Your task to perform on an android device: turn off javascript in the chrome app Image 0: 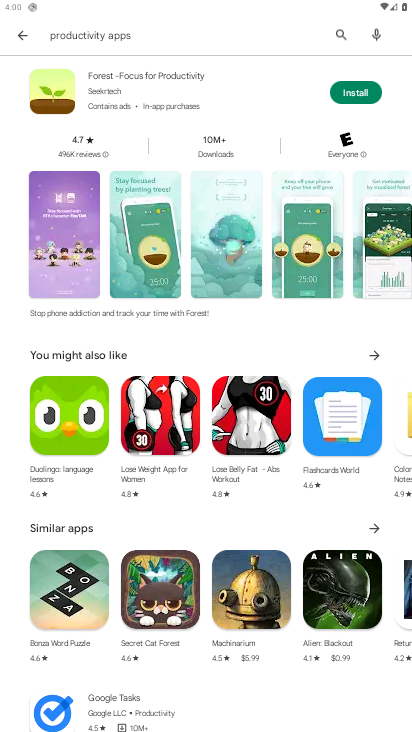
Step 0: press home button
Your task to perform on an android device: turn off javascript in the chrome app Image 1: 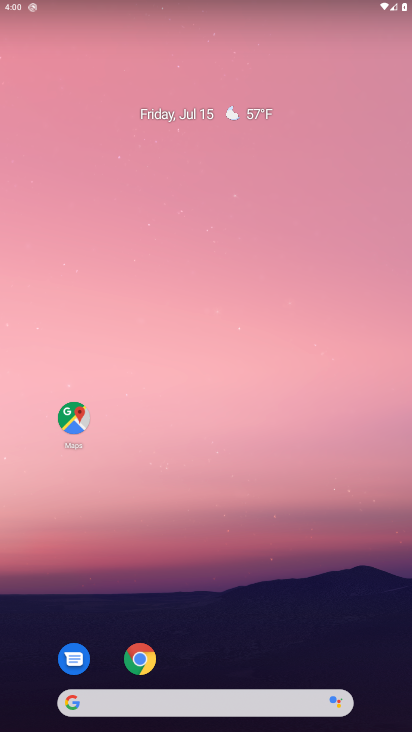
Step 1: click (126, 652)
Your task to perform on an android device: turn off javascript in the chrome app Image 2: 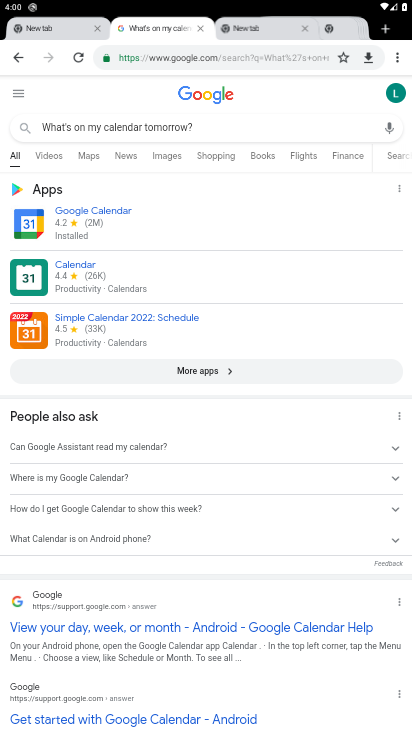
Step 2: click (395, 55)
Your task to perform on an android device: turn off javascript in the chrome app Image 3: 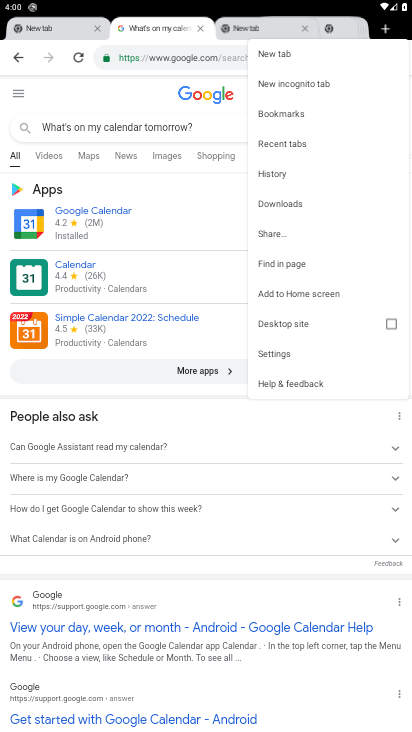
Step 3: click (279, 356)
Your task to perform on an android device: turn off javascript in the chrome app Image 4: 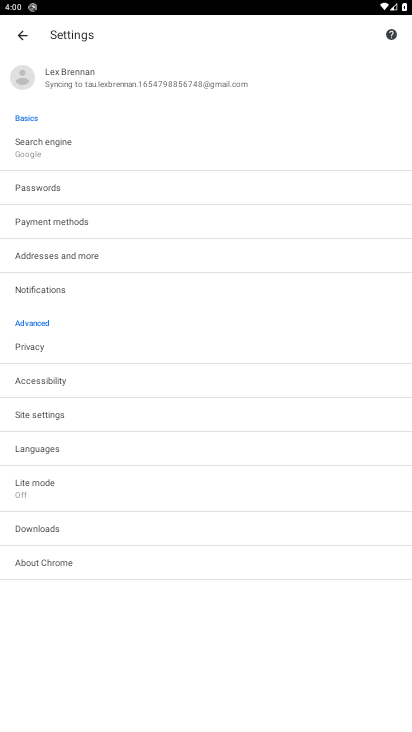
Step 4: click (46, 415)
Your task to perform on an android device: turn off javascript in the chrome app Image 5: 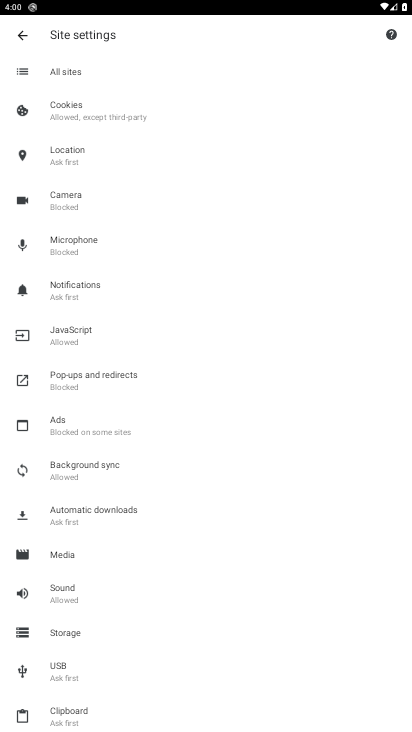
Step 5: click (78, 341)
Your task to perform on an android device: turn off javascript in the chrome app Image 6: 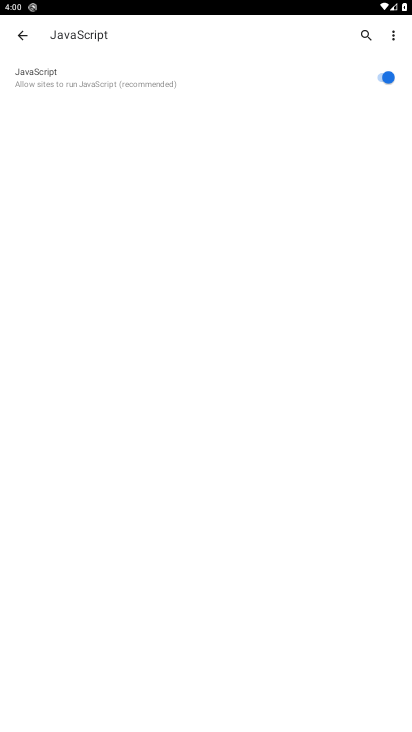
Step 6: click (385, 76)
Your task to perform on an android device: turn off javascript in the chrome app Image 7: 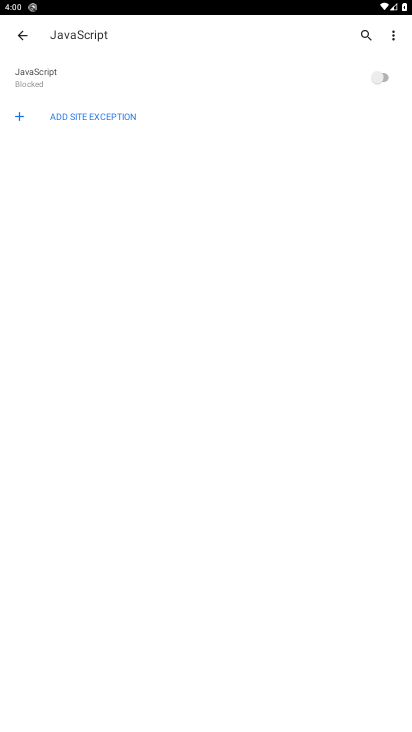
Step 7: task complete